Your task to perform on an android device: visit the assistant section in the google photos Image 0: 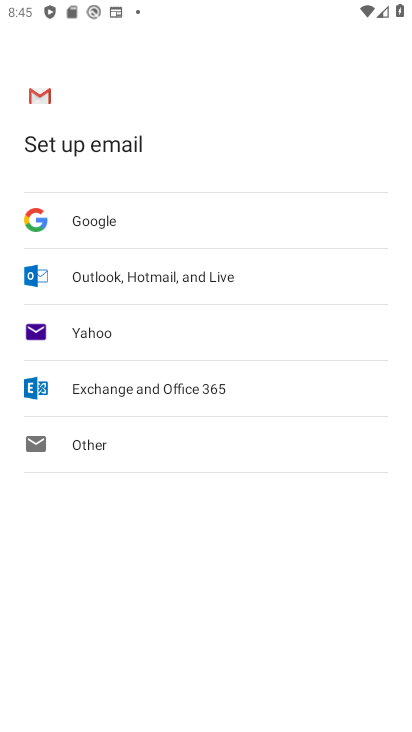
Step 0: press back button
Your task to perform on an android device: visit the assistant section in the google photos Image 1: 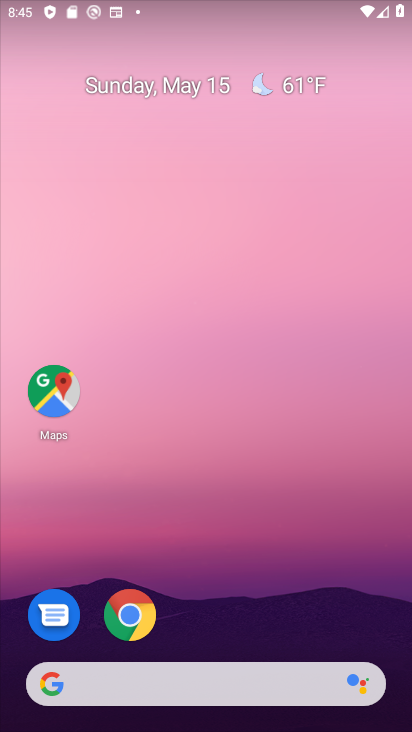
Step 1: drag from (249, 575) to (195, 0)
Your task to perform on an android device: visit the assistant section in the google photos Image 2: 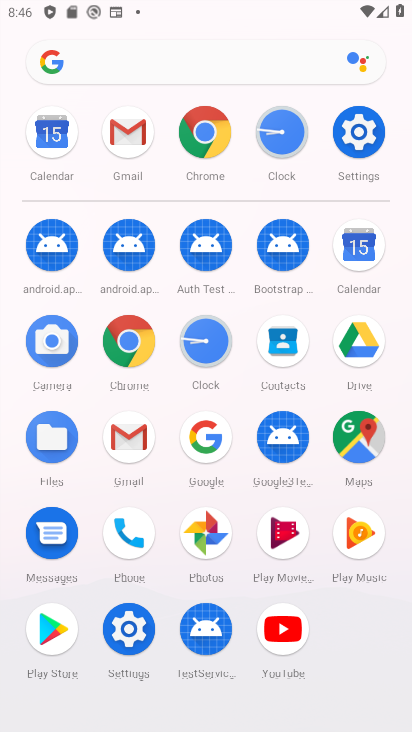
Step 2: drag from (3, 588) to (3, 317)
Your task to perform on an android device: visit the assistant section in the google photos Image 3: 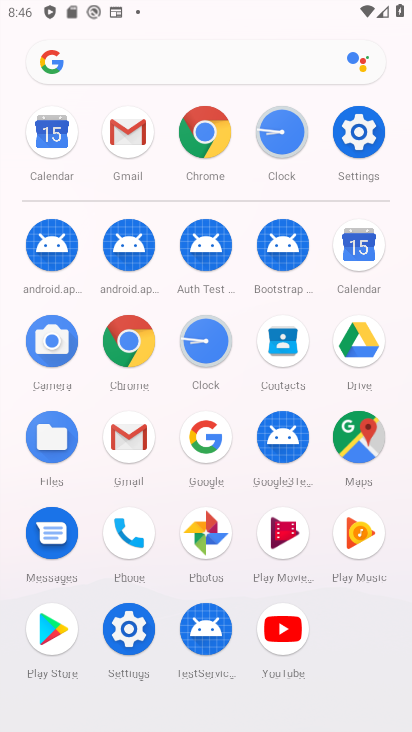
Step 3: click (203, 528)
Your task to perform on an android device: visit the assistant section in the google photos Image 4: 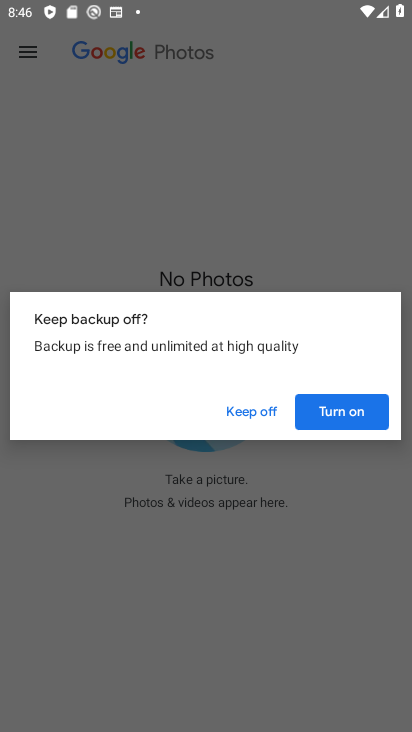
Step 4: press back button
Your task to perform on an android device: visit the assistant section in the google photos Image 5: 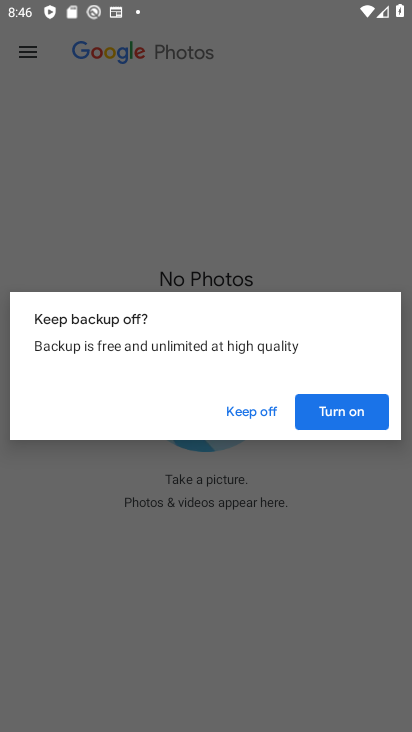
Step 5: click (362, 410)
Your task to perform on an android device: visit the assistant section in the google photos Image 6: 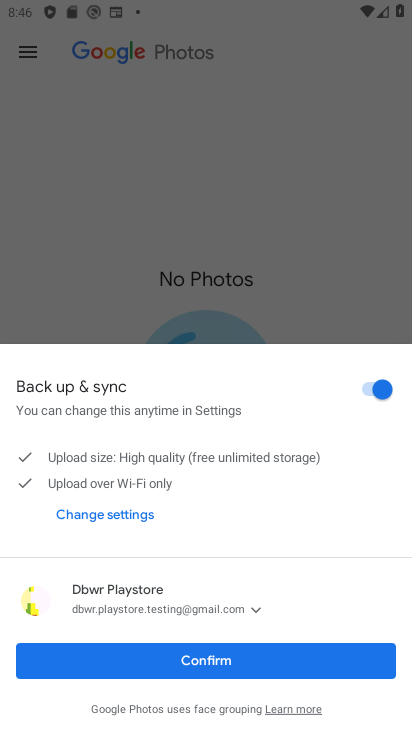
Step 6: click (184, 659)
Your task to perform on an android device: visit the assistant section in the google photos Image 7: 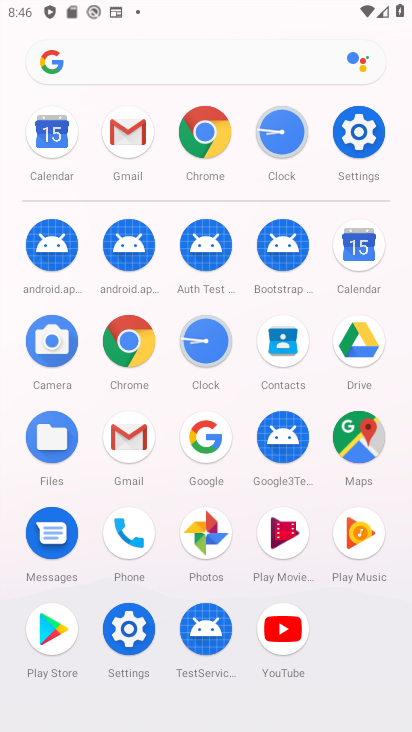
Step 7: click (204, 531)
Your task to perform on an android device: visit the assistant section in the google photos Image 8: 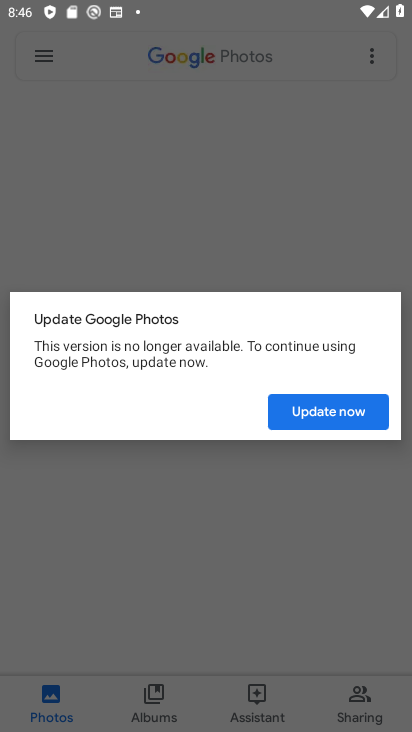
Step 8: click (337, 406)
Your task to perform on an android device: visit the assistant section in the google photos Image 9: 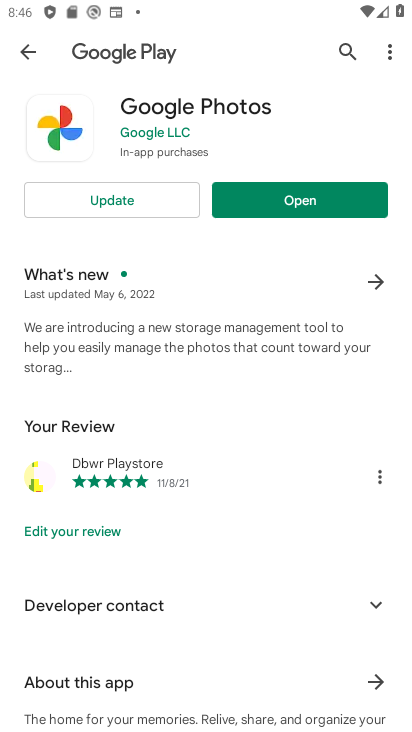
Step 9: click (150, 205)
Your task to perform on an android device: visit the assistant section in the google photos Image 10: 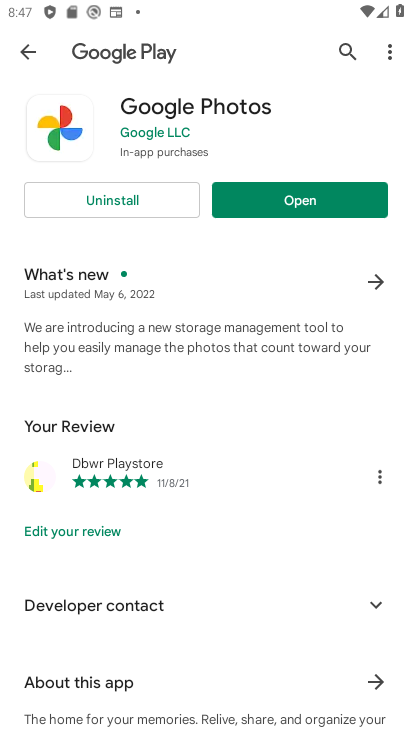
Step 10: click (299, 200)
Your task to perform on an android device: visit the assistant section in the google photos Image 11: 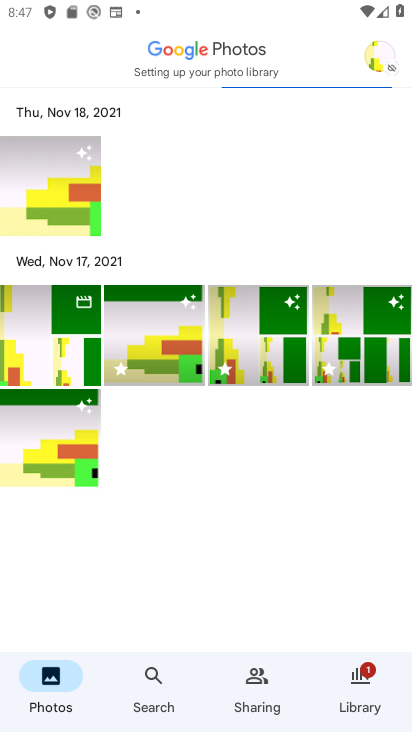
Step 11: click (366, 708)
Your task to perform on an android device: visit the assistant section in the google photos Image 12: 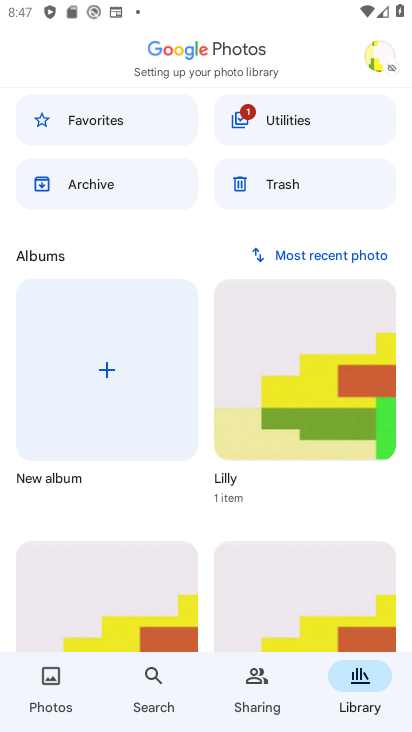
Step 12: click (238, 699)
Your task to perform on an android device: visit the assistant section in the google photos Image 13: 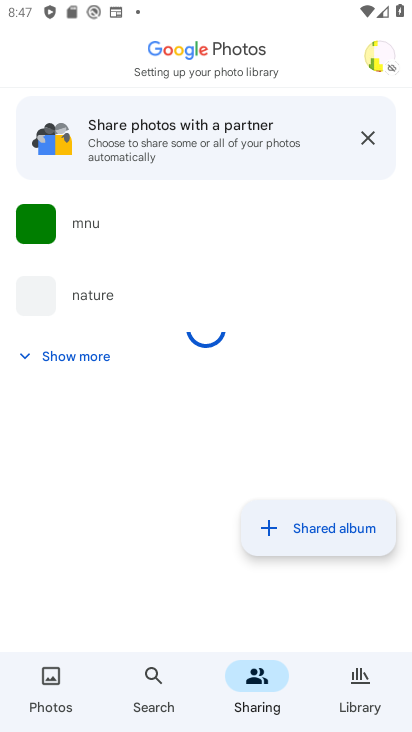
Step 13: click (340, 699)
Your task to perform on an android device: visit the assistant section in the google photos Image 14: 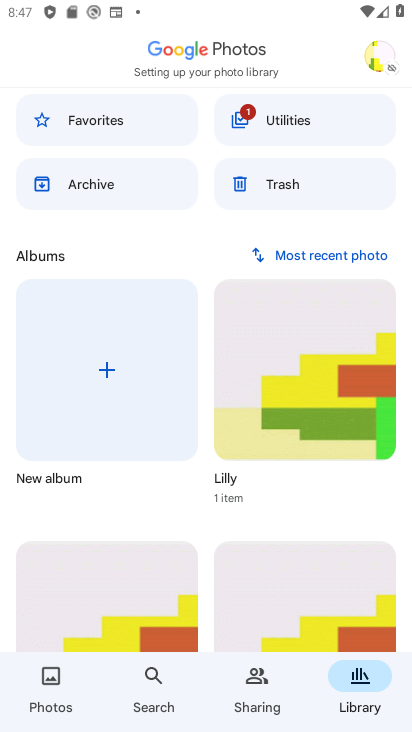
Step 14: click (51, 700)
Your task to perform on an android device: visit the assistant section in the google photos Image 15: 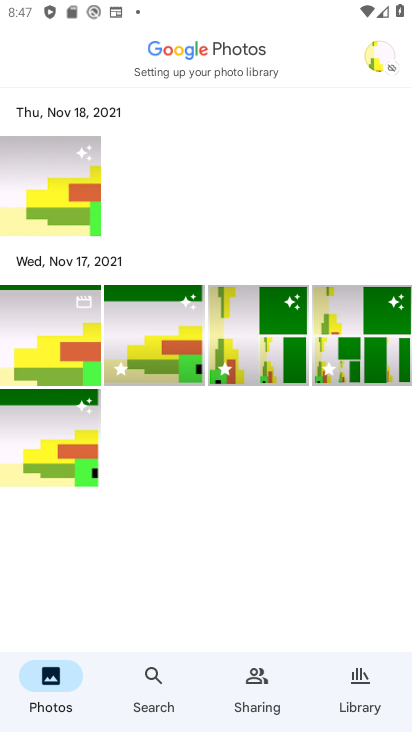
Step 15: task complete